Your task to perform on an android device: Open Yahoo.com Image 0: 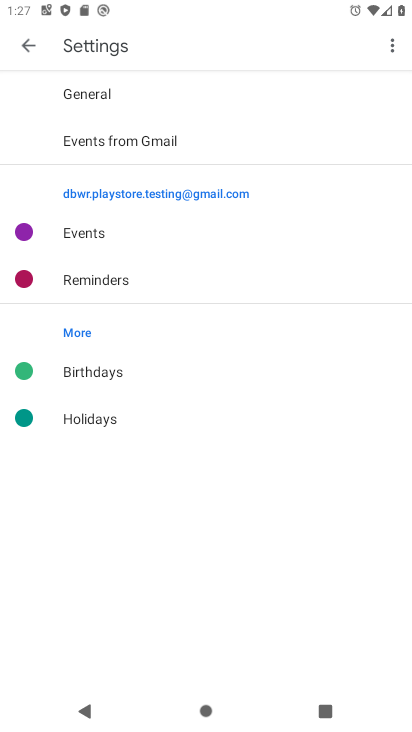
Step 0: press home button
Your task to perform on an android device: Open Yahoo.com Image 1: 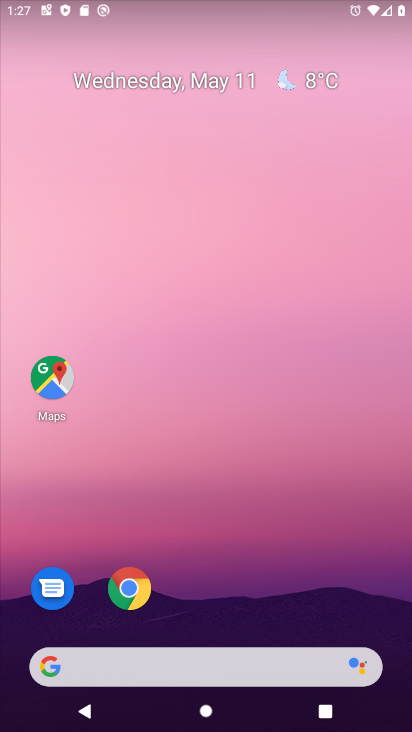
Step 1: click (126, 589)
Your task to perform on an android device: Open Yahoo.com Image 2: 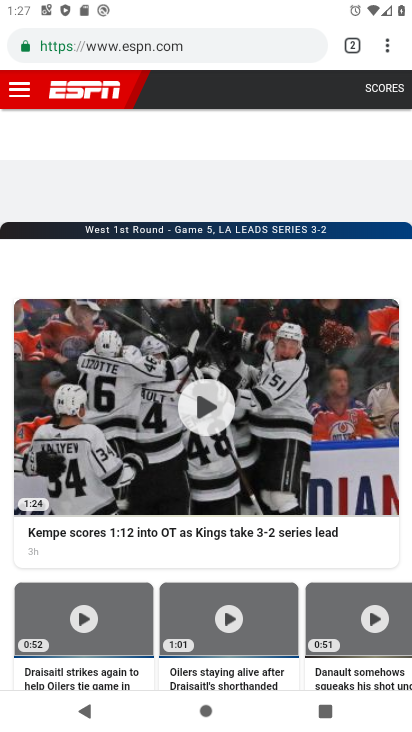
Step 2: click (131, 42)
Your task to perform on an android device: Open Yahoo.com Image 3: 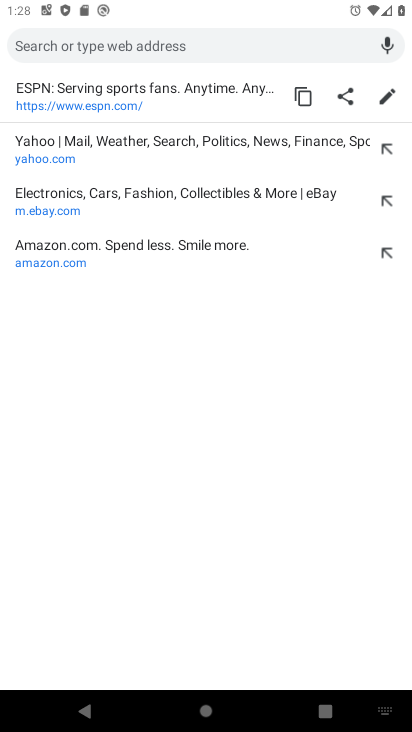
Step 3: click (83, 141)
Your task to perform on an android device: Open Yahoo.com Image 4: 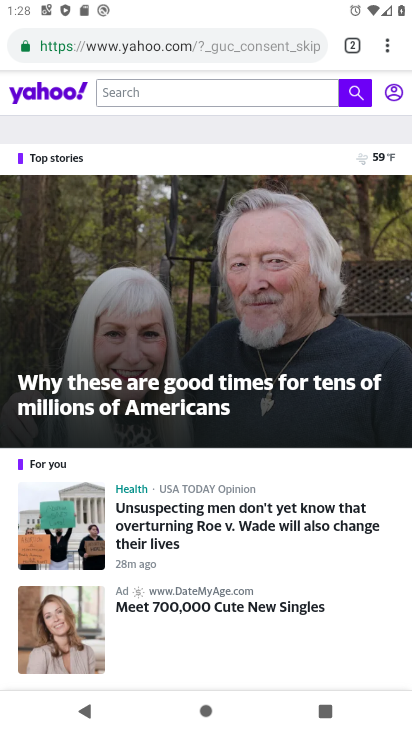
Step 4: task complete